Your task to perform on an android device: check out phone information Image 0: 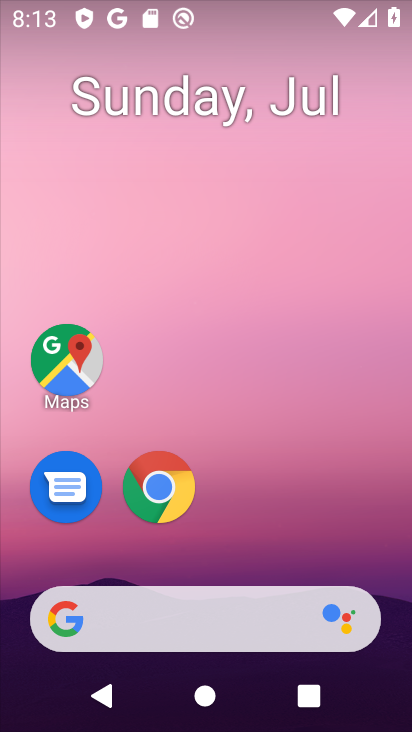
Step 0: drag from (265, 510) to (291, 5)
Your task to perform on an android device: check out phone information Image 1: 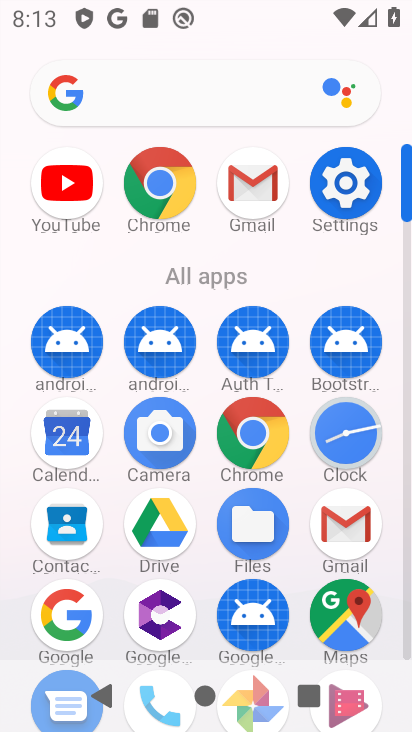
Step 1: click (359, 190)
Your task to perform on an android device: check out phone information Image 2: 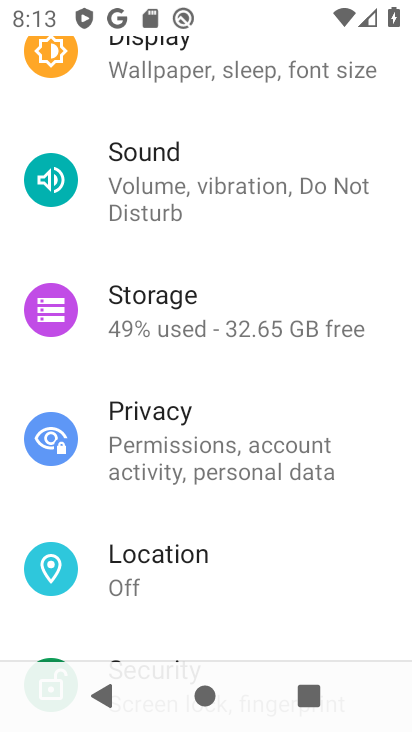
Step 2: drag from (176, 606) to (241, 48)
Your task to perform on an android device: check out phone information Image 3: 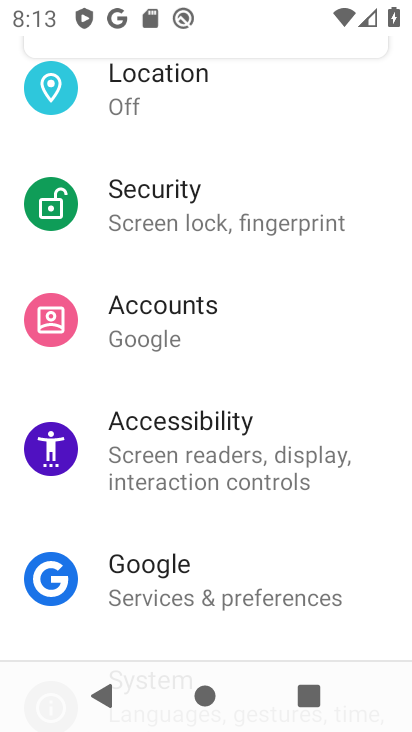
Step 3: drag from (212, 607) to (289, 0)
Your task to perform on an android device: check out phone information Image 4: 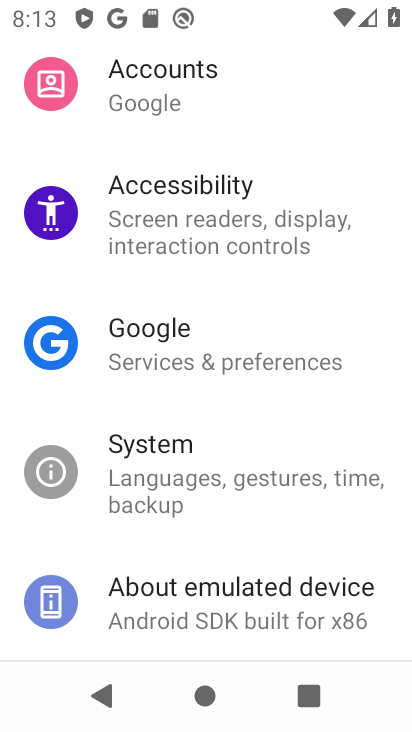
Step 4: click (180, 599)
Your task to perform on an android device: check out phone information Image 5: 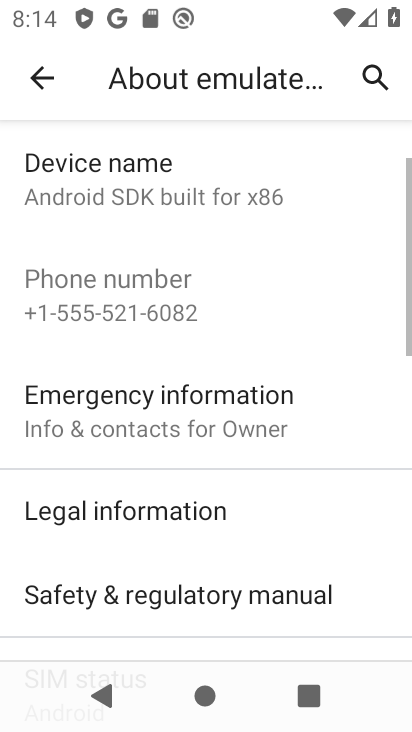
Step 5: task complete